Your task to perform on an android device: What's on the menu at Papa Murphy's? Image 0: 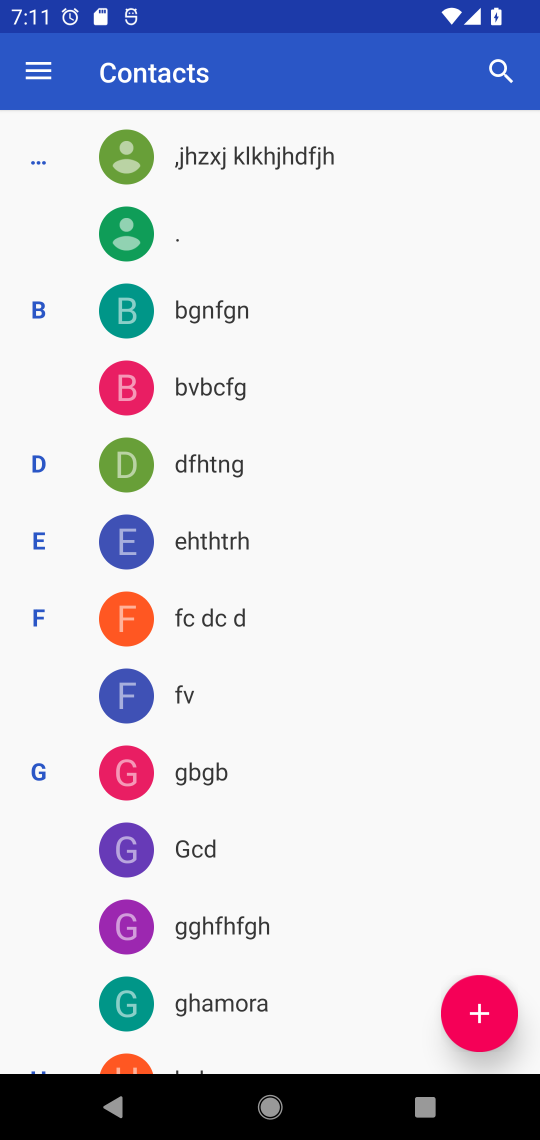
Step 0: press home button
Your task to perform on an android device: What's on the menu at Papa Murphy's? Image 1: 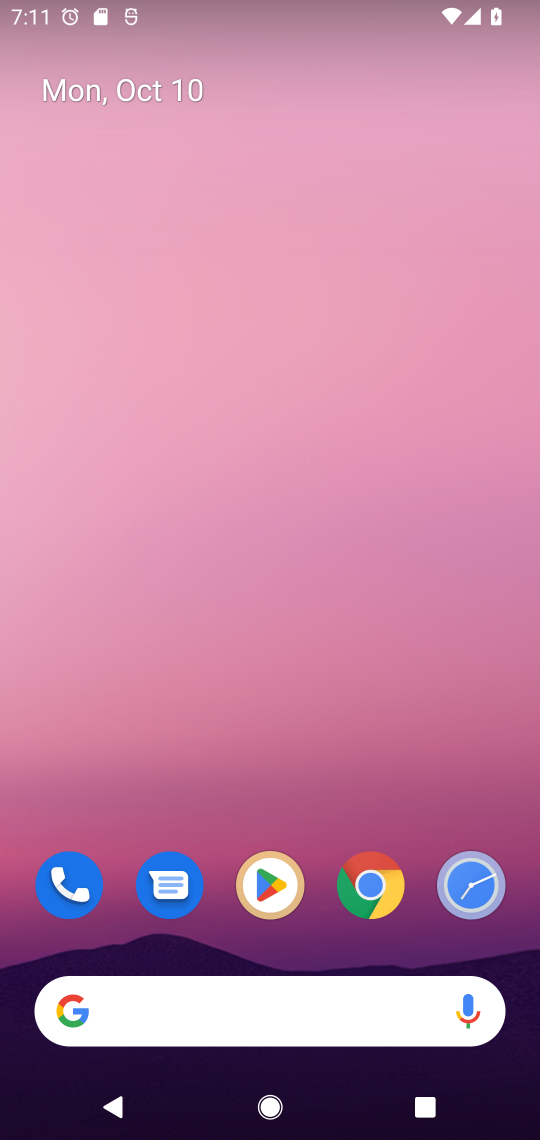
Step 1: click (370, 882)
Your task to perform on an android device: What's on the menu at Papa Murphy's? Image 2: 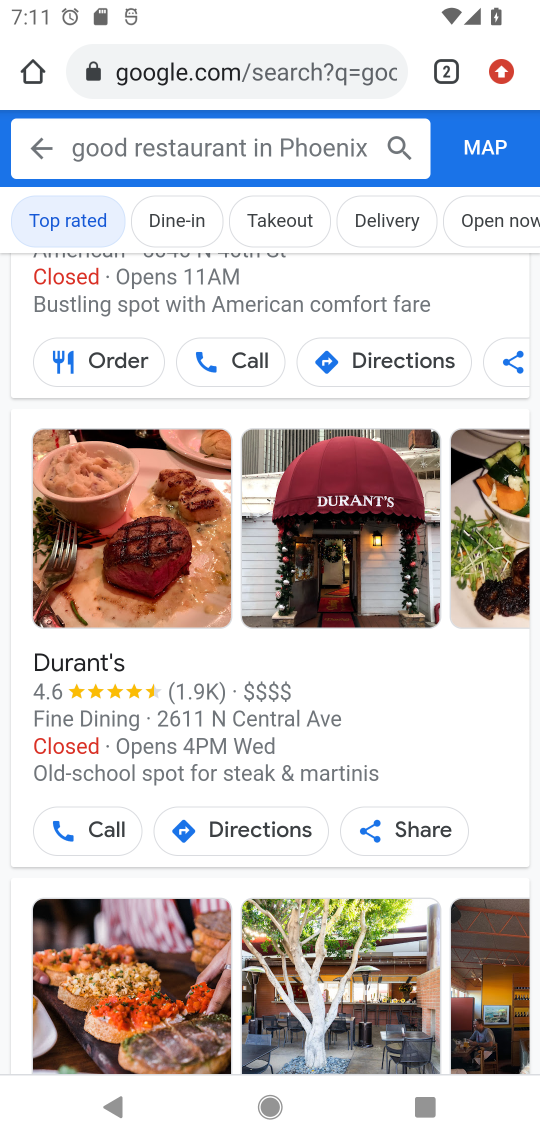
Step 2: click (257, 85)
Your task to perform on an android device: What's on the menu at Papa Murphy's? Image 3: 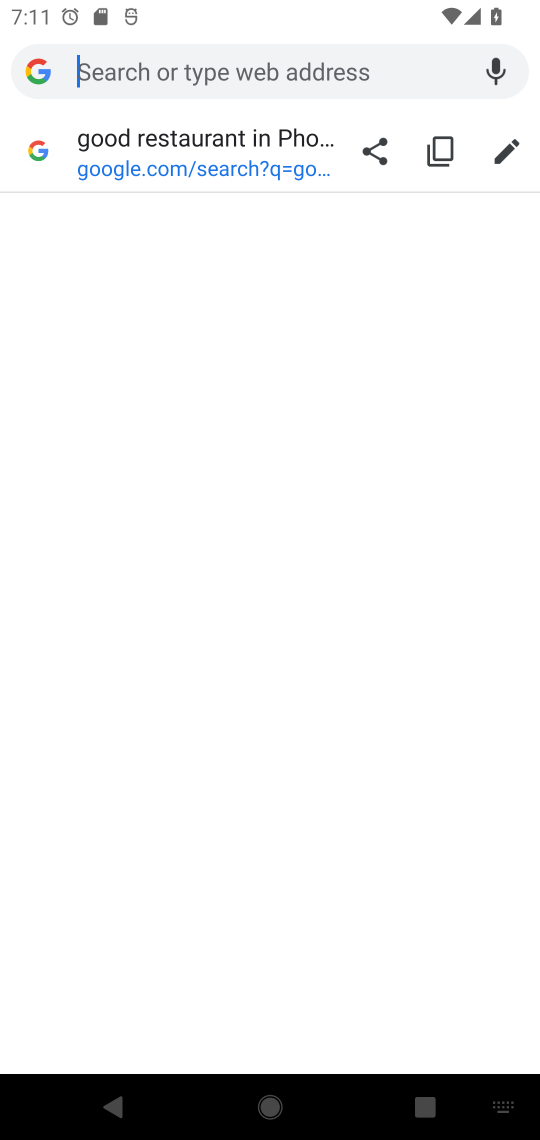
Step 3: type "menu at Papa Murphy's"
Your task to perform on an android device: What's on the menu at Papa Murphy's? Image 4: 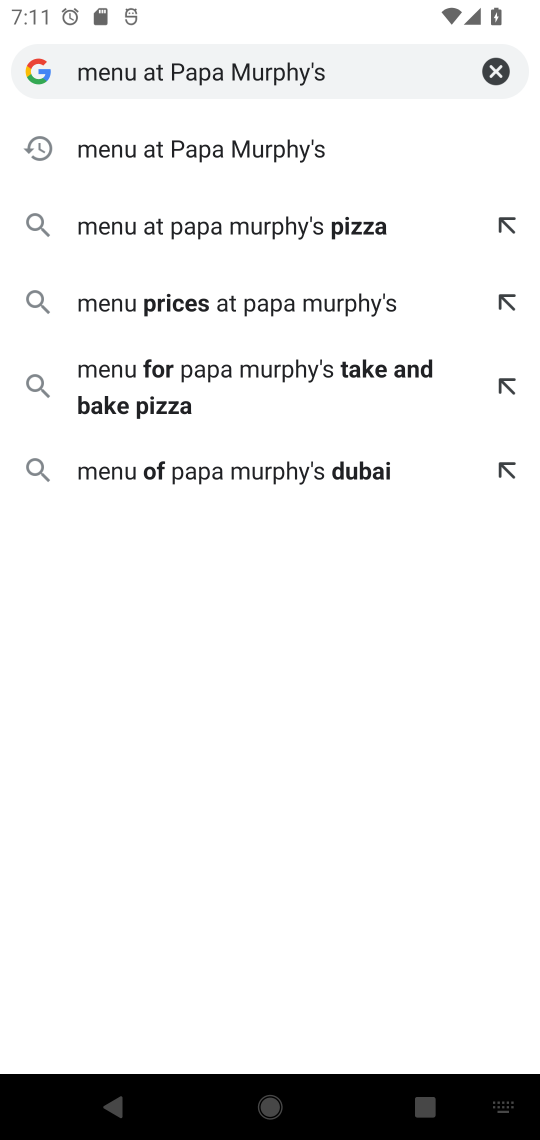
Step 4: click (261, 140)
Your task to perform on an android device: What's on the menu at Papa Murphy's? Image 5: 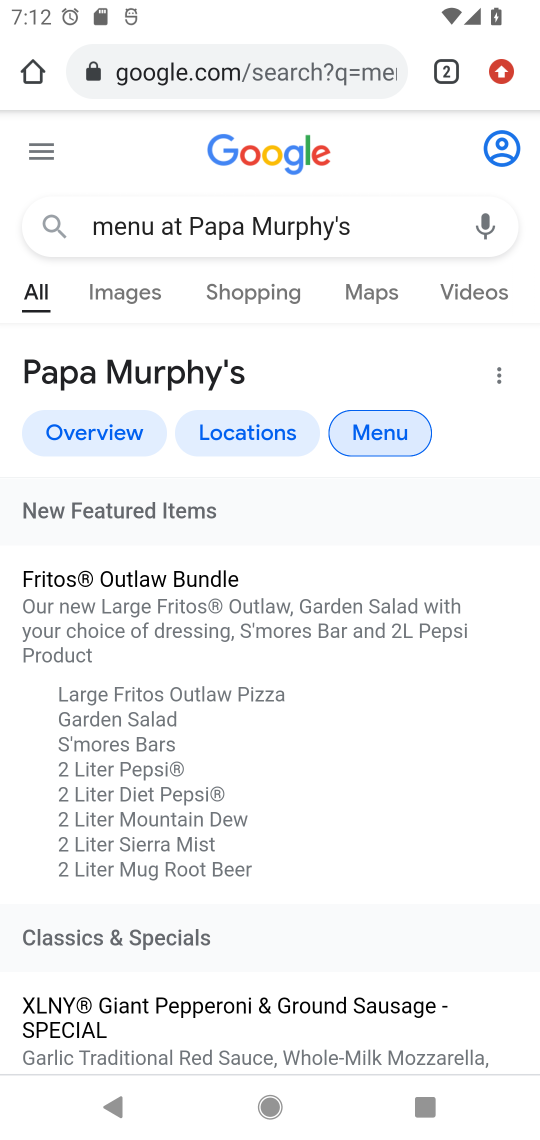
Step 5: drag from (265, 856) to (281, 277)
Your task to perform on an android device: What's on the menu at Papa Murphy's? Image 6: 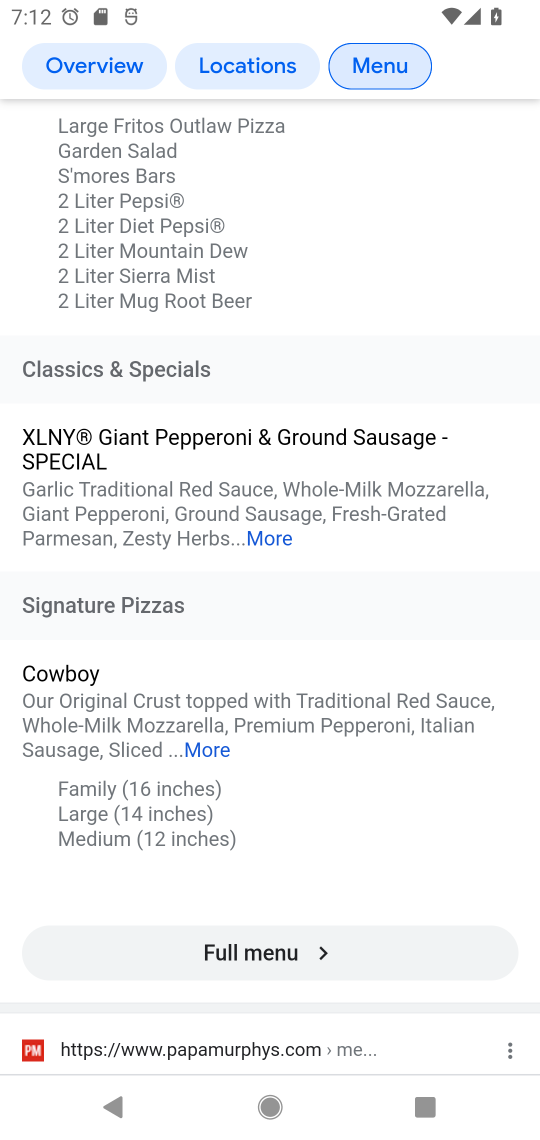
Step 6: click (276, 948)
Your task to perform on an android device: What's on the menu at Papa Murphy's? Image 7: 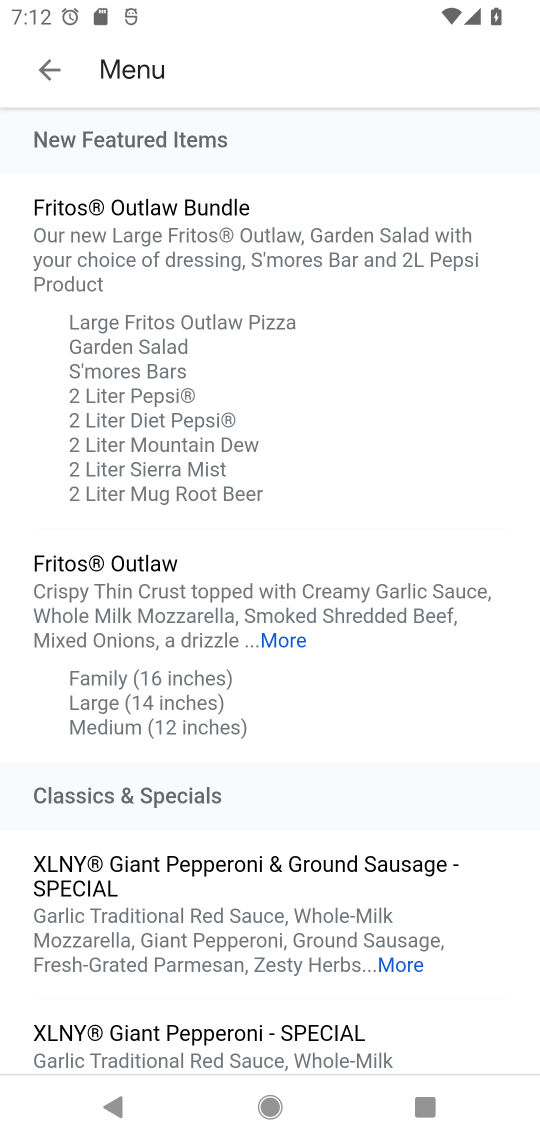
Step 7: task complete